Your task to perform on an android device: Search for seafood restaurants on Google Maps Image 0: 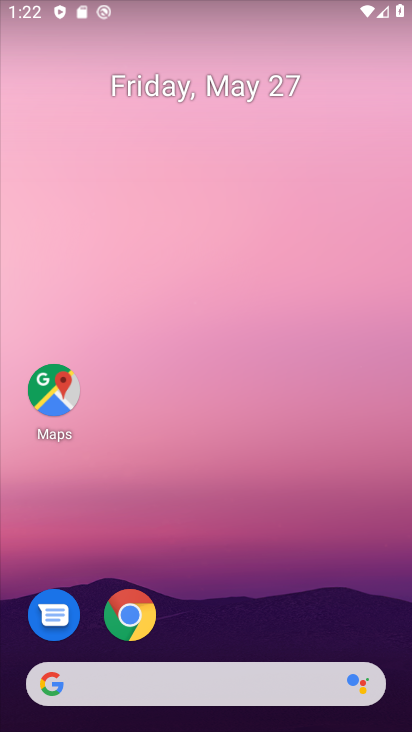
Step 0: press home button
Your task to perform on an android device: Search for seafood restaurants on Google Maps Image 1: 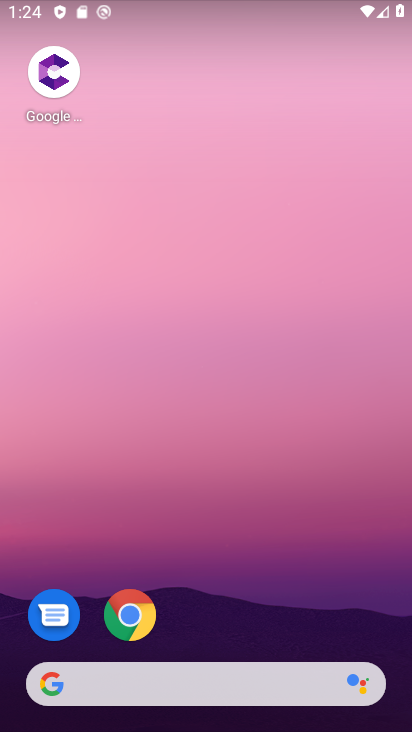
Step 1: drag from (187, 658) to (180, 85)
Your task to perform on an android device: Search for seafood restaurants on Google Maps Image 2: 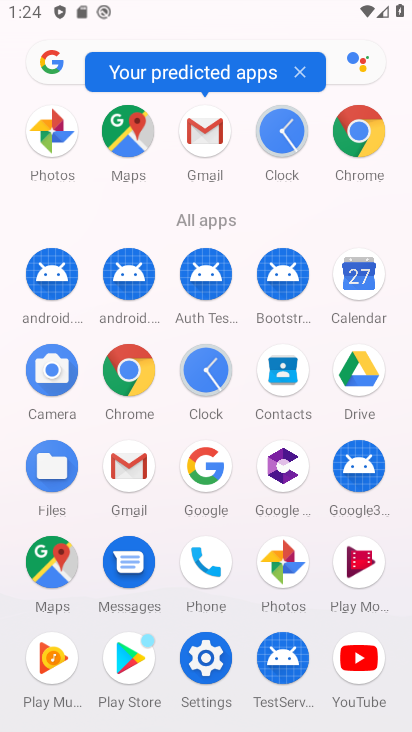
Step 2: click (44, 556)
Your task to perform on an android device: Search for seafood restaurants on Google Maps Image 3: 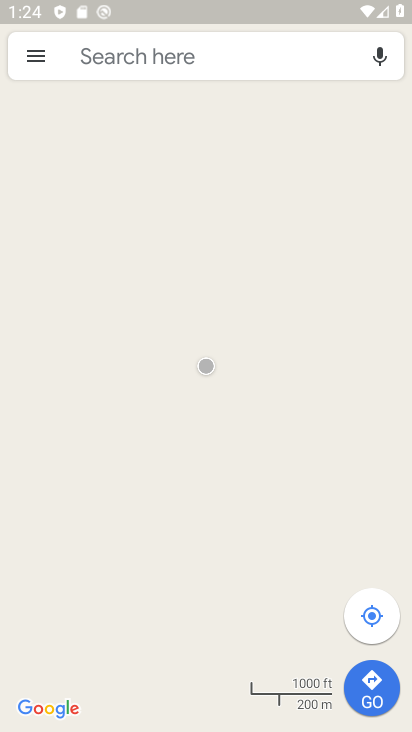
Step 3: click (190, 65)
Your task to perform on an android device: Search for seafood restaurants on Google Maps Image 4: 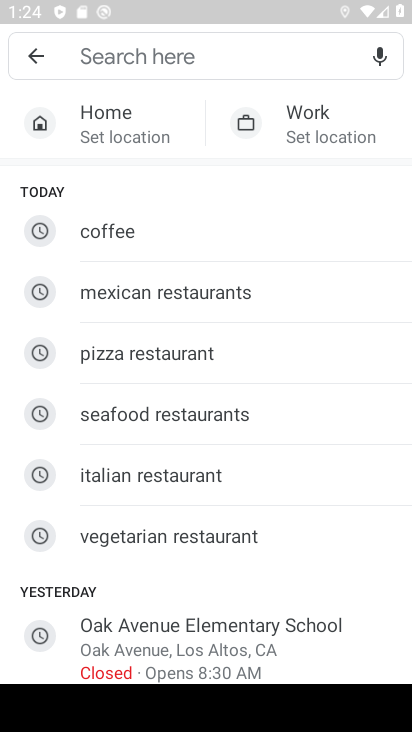
Step 4: click (164, 410)
Your task to perform on an android device: Search for seafood restaurants on Google Maps Image 5: 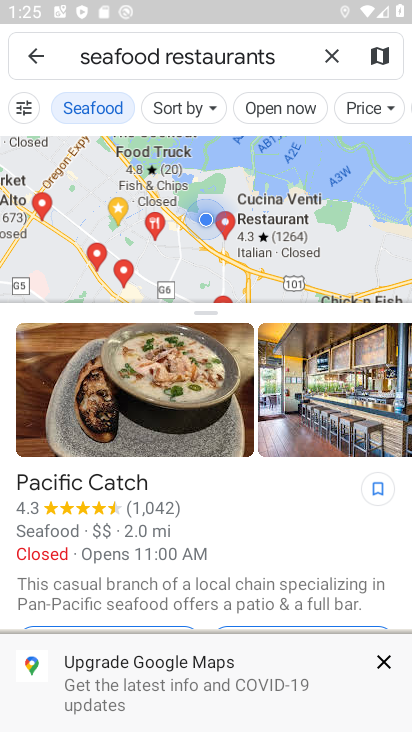
Step 5: task complete